Your task to perform on an android device: Open network settings Image 0: 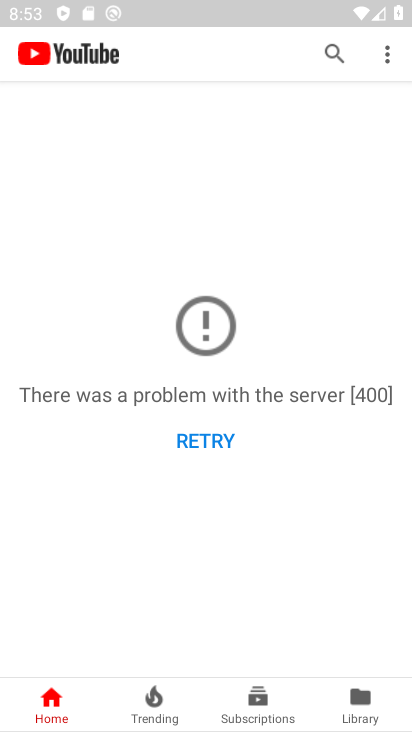
Step 0: press home button
Your task to perform on an android device: Open network settings Image 1: 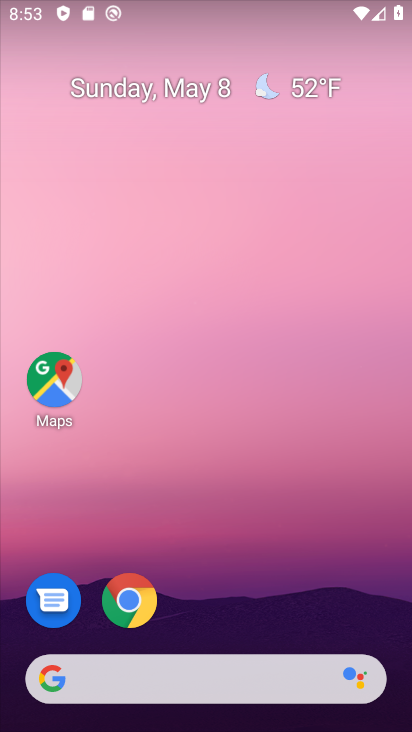
Step 1: drag from (298, 593) to (338, 68)
Your task to perform on an android device: Open network settings Image 2: 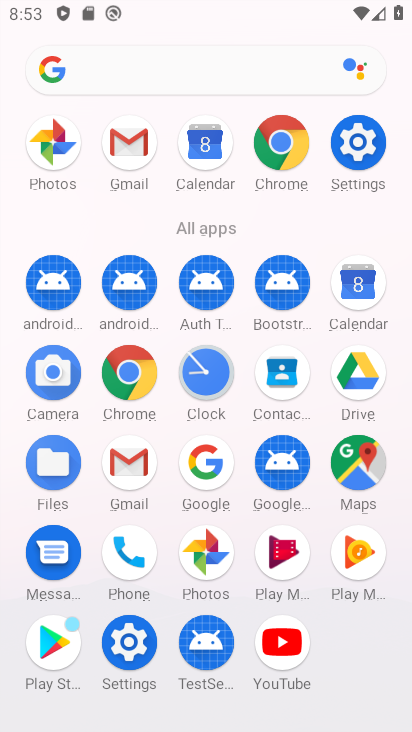
Step 2: click (362, 160)
Your task to perform on an android device: Open network settings Image 3: 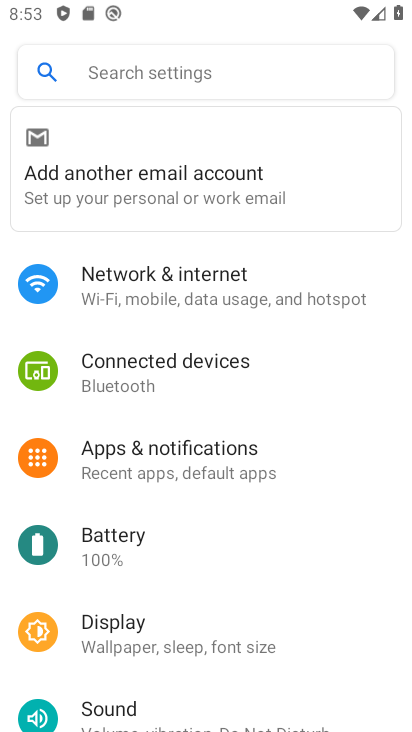
Step 3: click (266, 309)
Your task to perform on an android device: Open network settings Image 4: 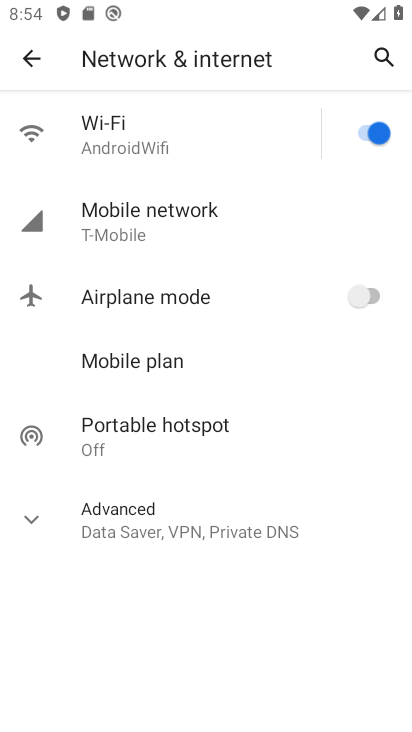
Step 4: task complete